Your task to perform on an android device: toggle airplane mode Image 0: 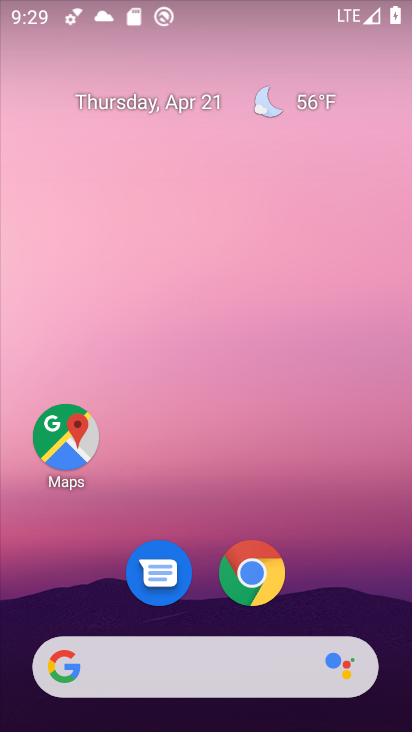
Step 0: drag from (357, 554) to (392, 162)
Your task to perform on an android device: toggle airplane mode Image 1: 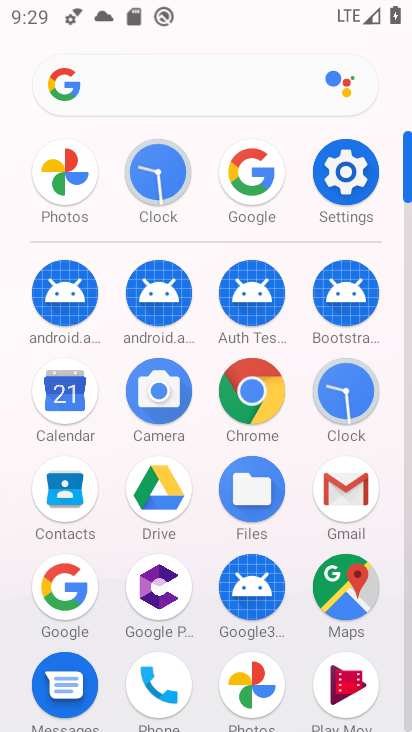
Step 1: click (345, 165)
Your task to perform on an android device: toggle airplane mode Image 2: 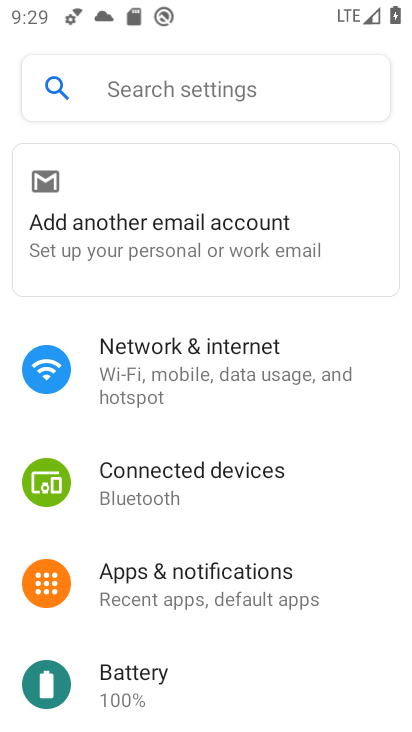
Step 2: click (169, 367)
Your task to perform on an android device: toggle airplane mode Image 3: 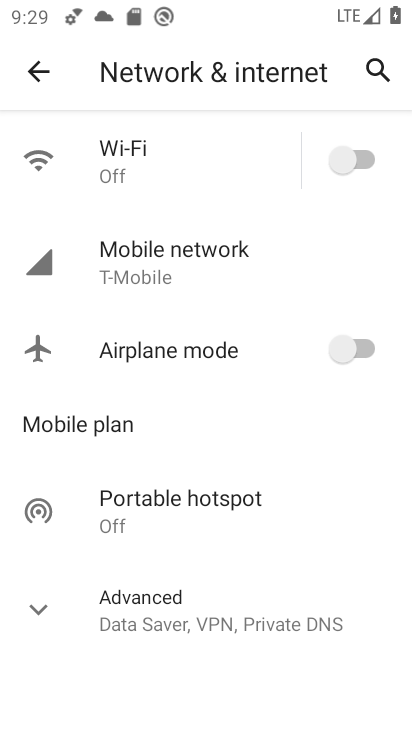
Step 3: click (354, 348)
Your task to perform on an android device: toggle airplane mode Image 4: 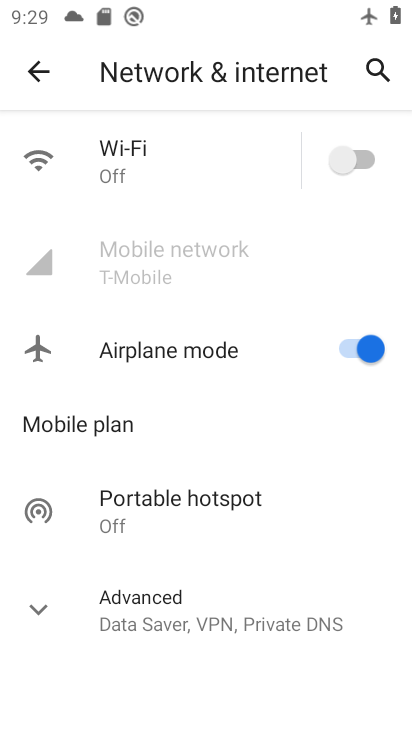
Step 4: task complete